Your task to perform on an android device: turn smart compose on in the gmail app Image 0: 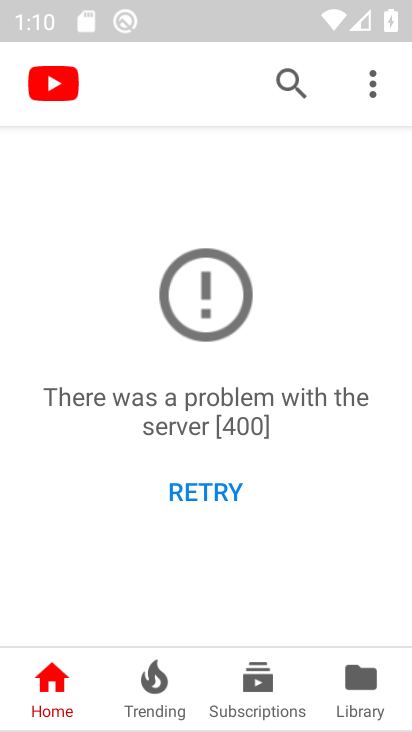
Step 0: press back button
Your task to perform on an android device: turn smart compose on in the gmail app Image 1: 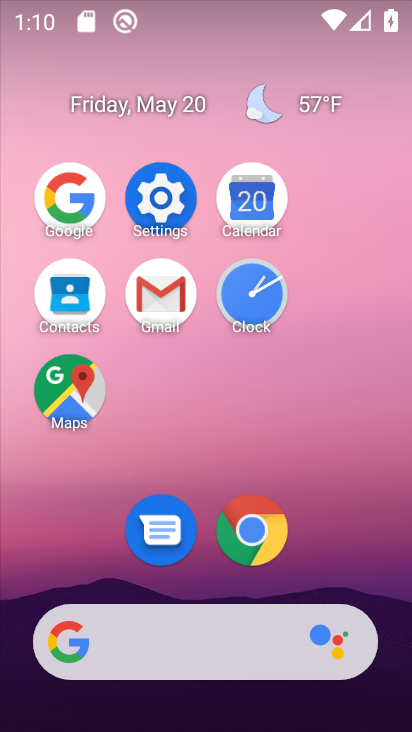
Step 1: click (178, 306)
Your task to perform on an android device: turn smart compose on in the gmail app Image 2: 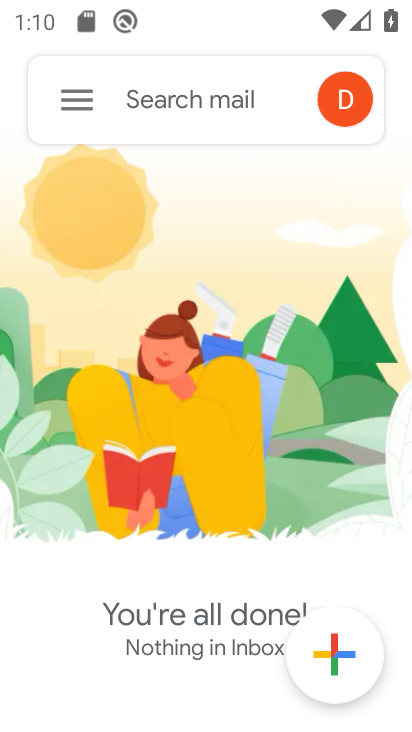
Step 2: click (62, 103)
Your task to perform on an android device: turn smart compose on in the gmail app Image 3: 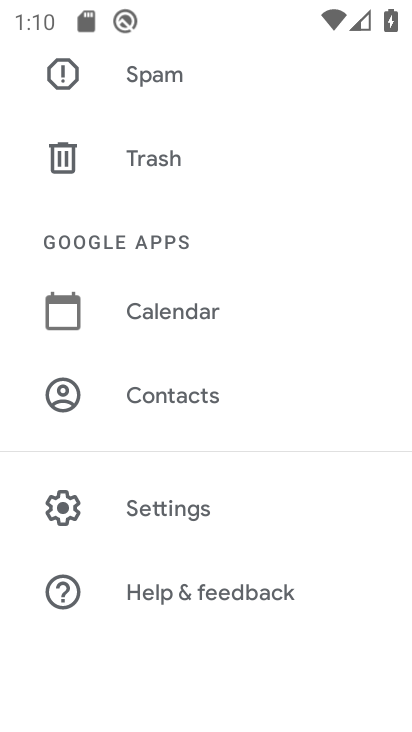
Step 3: click (289, 496)
Your task to perform on an android device: turn smart compose on in the gmail app Image 4: 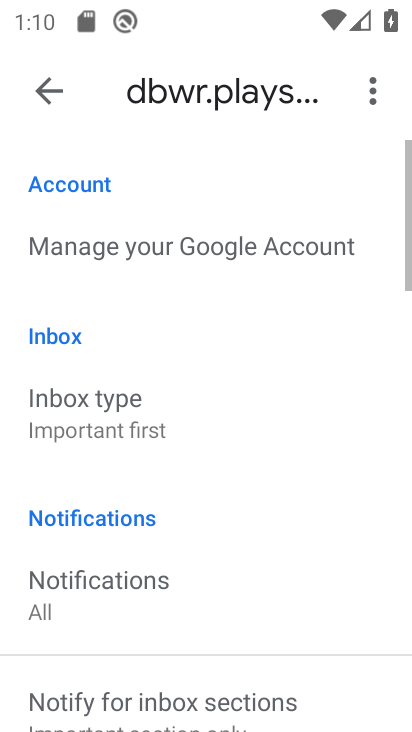
Step 4: task complete